Your task to perform on an android device: Go to Google Image 0: 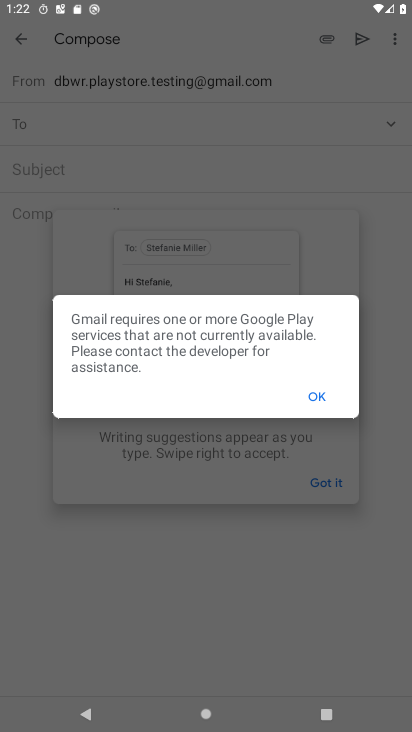
Step 0: press home button
Your task to perform on an android device: Go to Google Image 1: 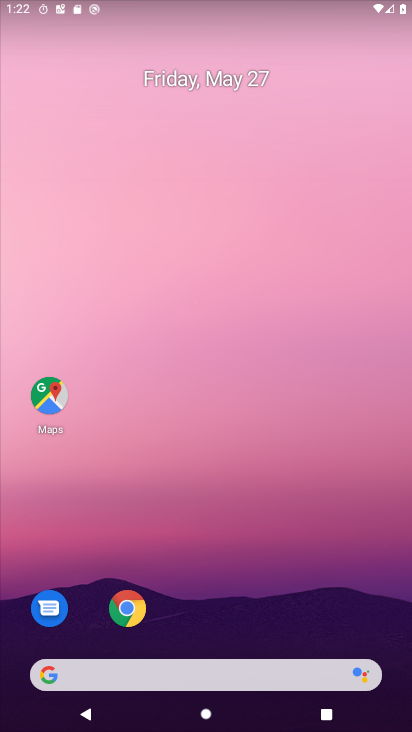
Step 1: drag from (391, 699) to (279, 139)
Your task to perform on an android device: Go to Google Image 2: 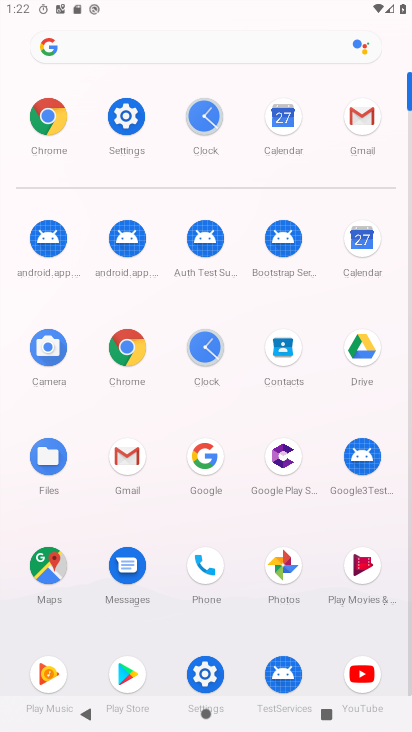
Step 2: click (204, 466)
Your task to perform on an android device: Go to Google Image 3: 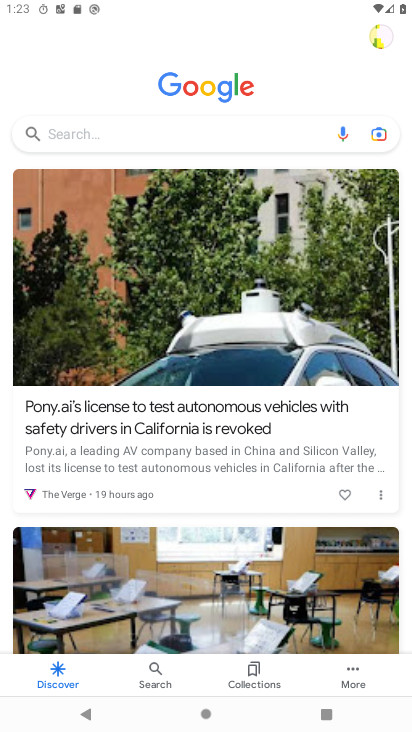
Step 3: task complete